Your task to perform on an android device: turn on the 24-hour format for clock Image 0: 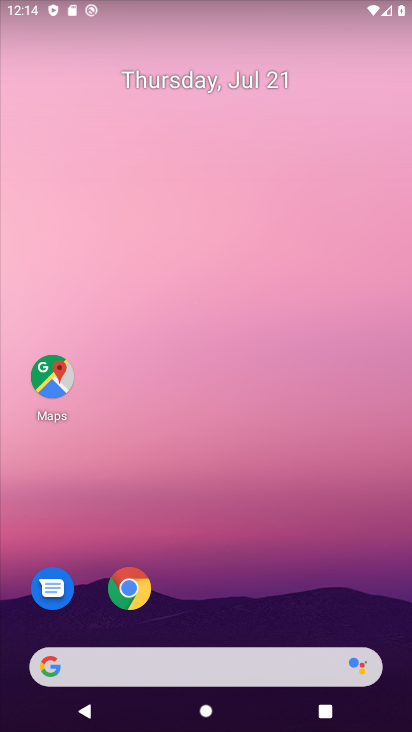
Step 0: drag from (297, 557) to (296, 74)
Your task to perform on an android device: turn on the 24-hour format for clock Image 1: 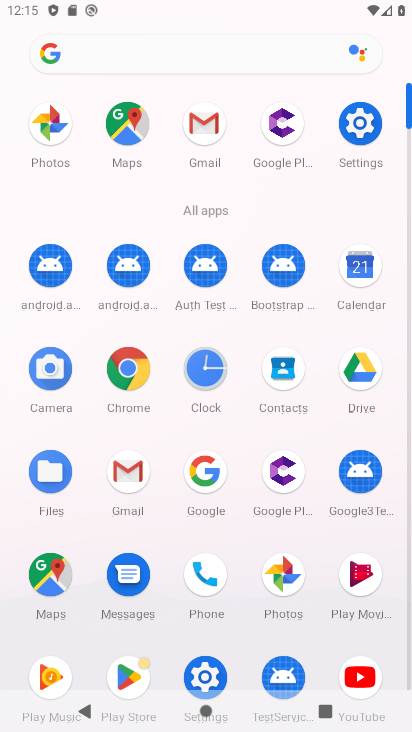
Step 1: click (207, 373)
Your task to perform on an android device: turn on the 24-hour format for clock Image 2: 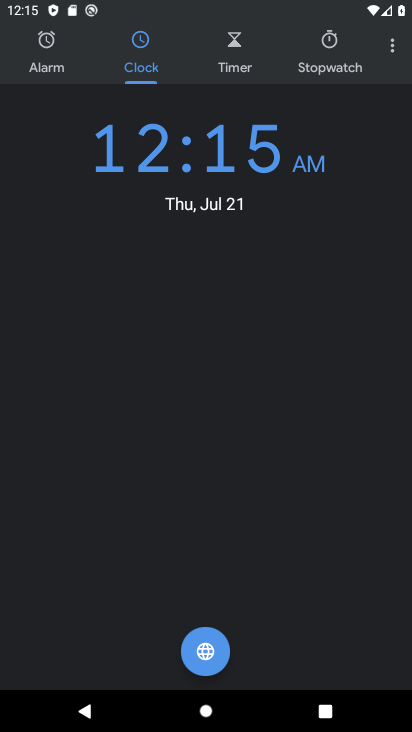
Step 2: click (391, 46)
Your task to perform on an android device: turn on the 24-hour format for clock Image 3: 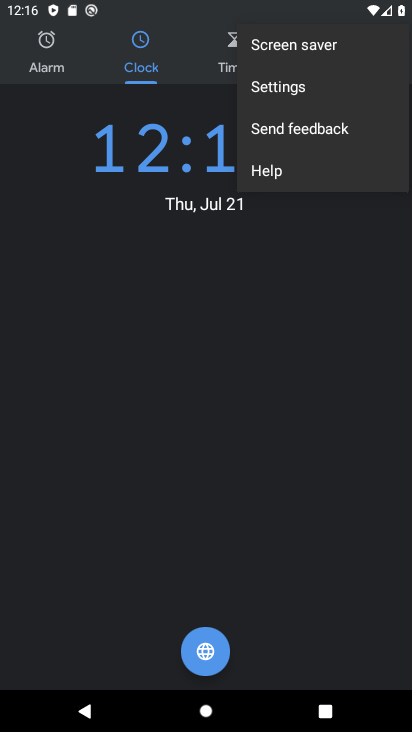
Step 3: click (308, 95)
Your task to perform on an android device: turn on the 24-hour format for clock Image 4: 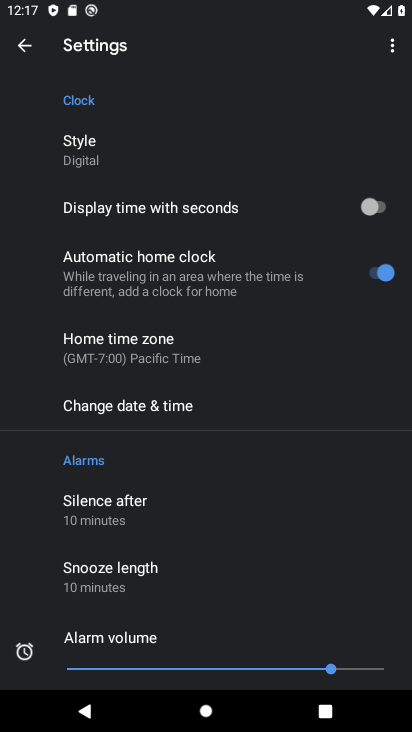
Step 4: click (203, 401)
Your task to perform on an android device: turn on the 24-hour format for clock Image 5: 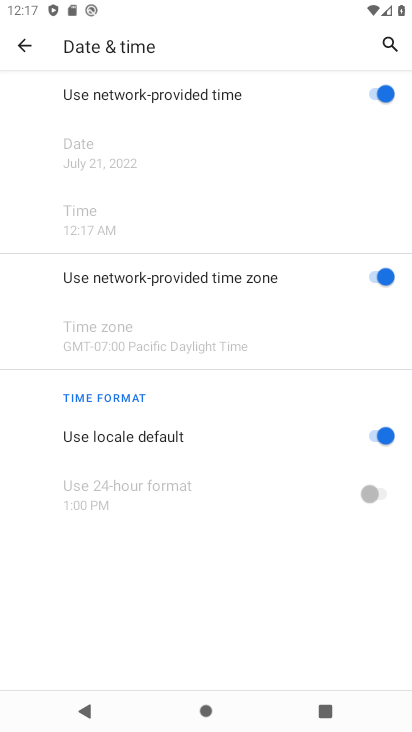
Step 5: click (384, 442)
Your task to perform on an android device: turn on the 24-hour format for clock Image 6: 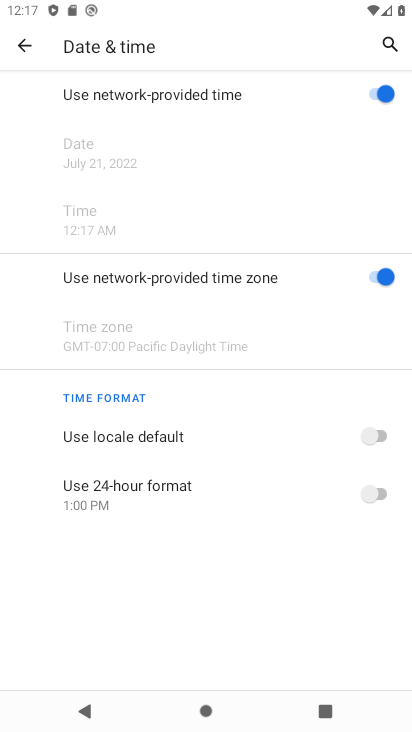
Step 6: click (379, 493)
Your task to perform on an android device: turn on the 24-hour format for clock Image 7: 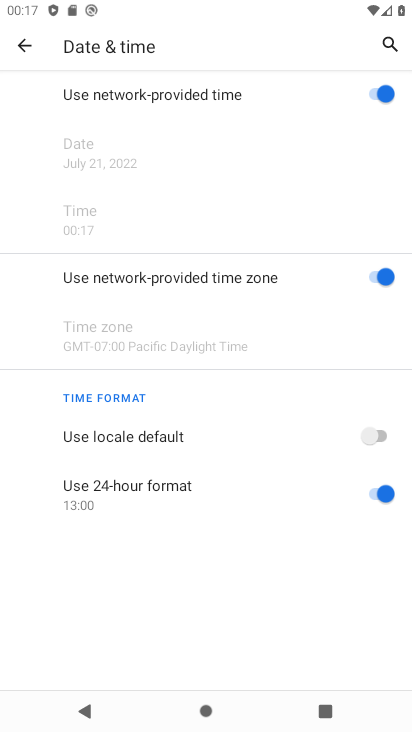
Step 7: task complete